Your task to perform on an android device: Open internet settings Image 0: 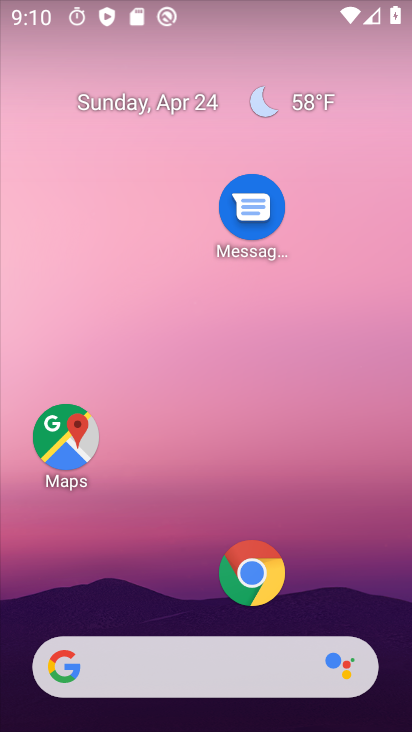
Step 0: drag from (179, 607) to (290, 5)
Your task to perform on an android device: Open internet settings Image 1: 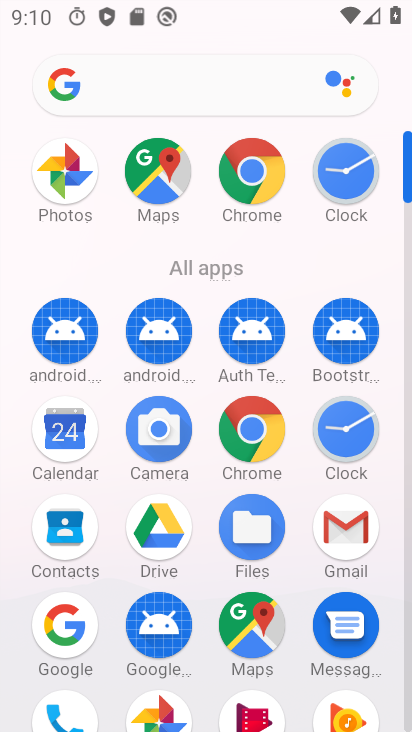
Step 1: drag from (198, 600) to (269, 87)
Your task to perform on an android device: Open internet settings Image 2: 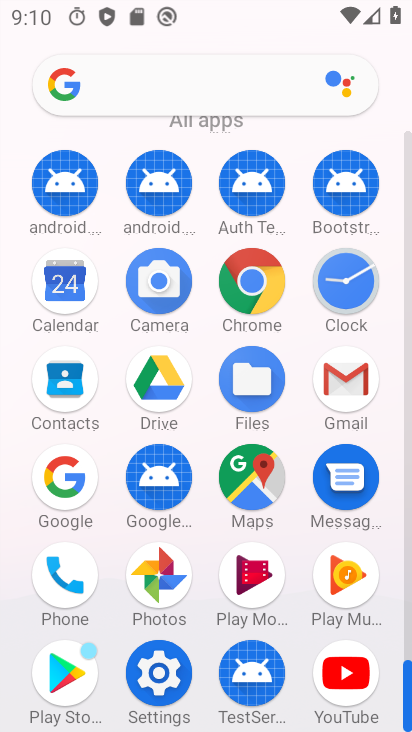
Step 2: click (158, 682)
Your task to perform on an android device: Open internet settings Image 3: 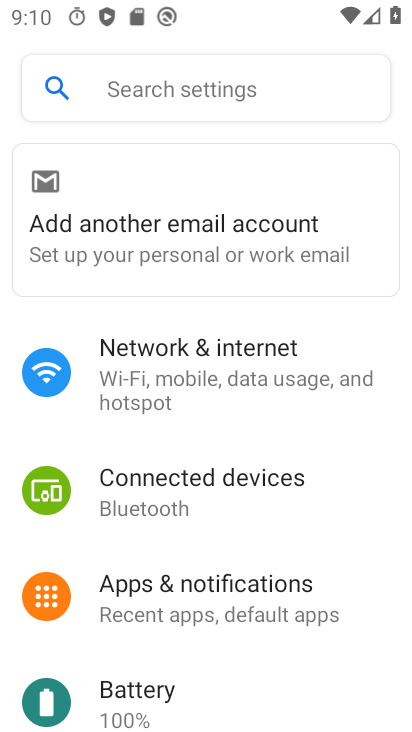
Step 3: click (219, 370)
Your task to perform on an android device: Open internet settings Image 4: 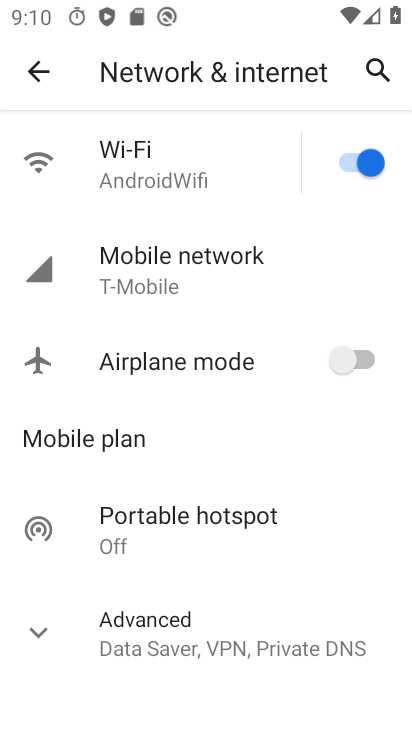
Step 4: task complete